Your task to perform on an android device: How much does a 2 bedroom apartment rent for in New York? Image 0: 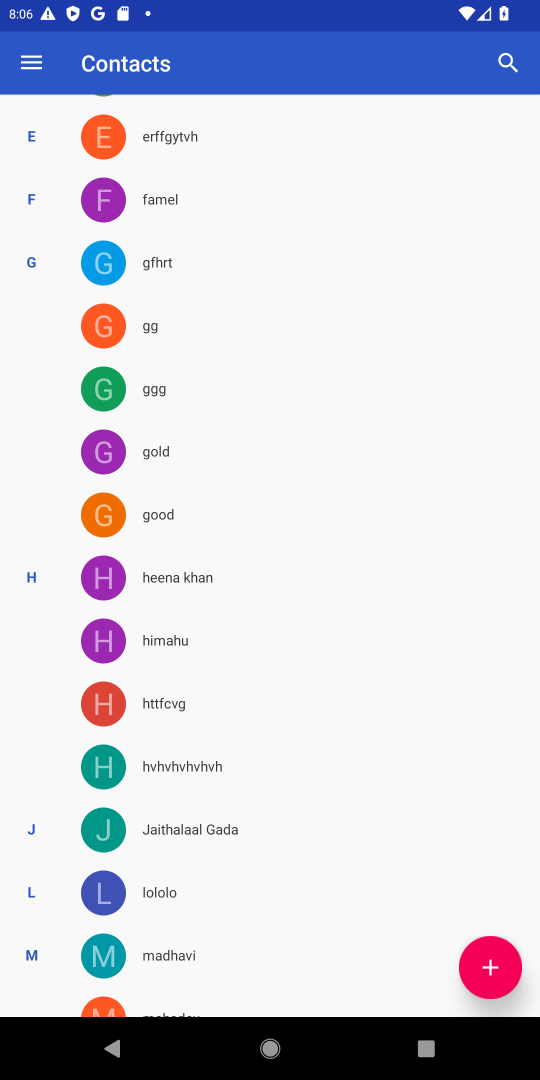
Step 0: press home button
Your task to perform on an android device: How much does a 2 bedroom apartment rent for in New York? Image 1: 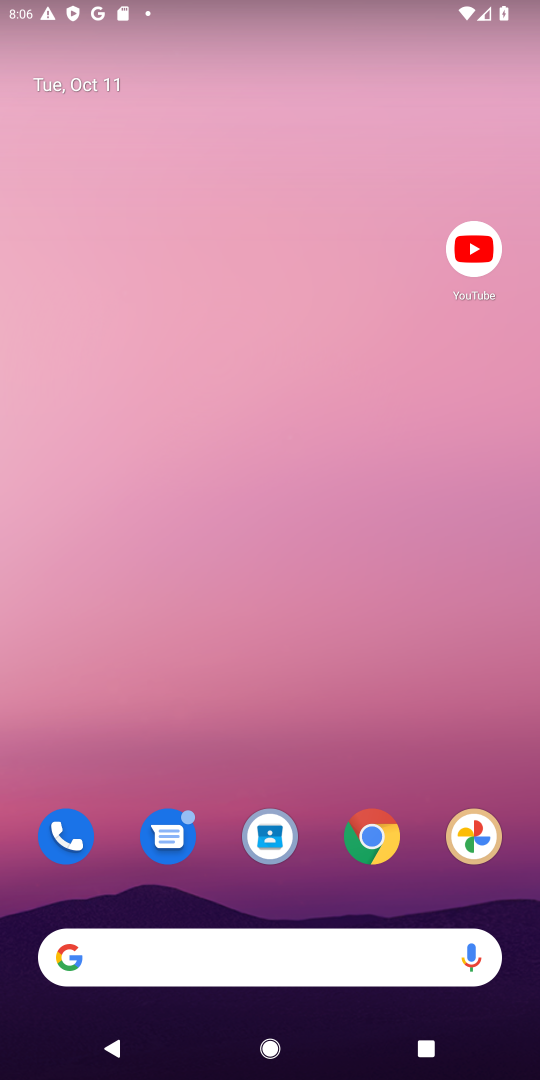
Step 1: click (374, 837)
Your task to perform on an android device: How much does a 2 bedroom apartment rent for in New York? Image 2: 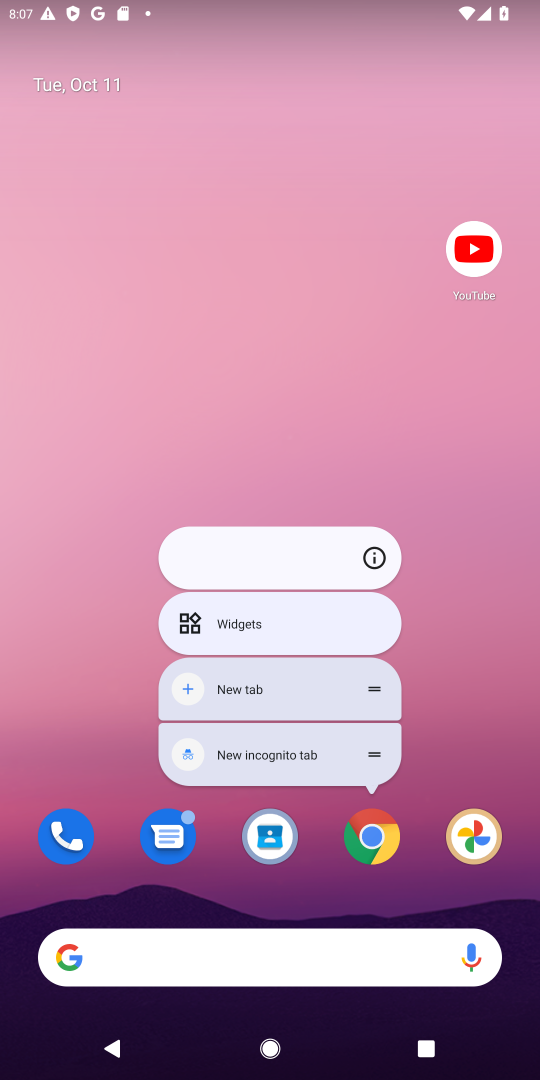
Step 2: click (374, 837)
Your task to perform on an android device: How much does a 2 bedroom apartment rent for in New York? Image 3: 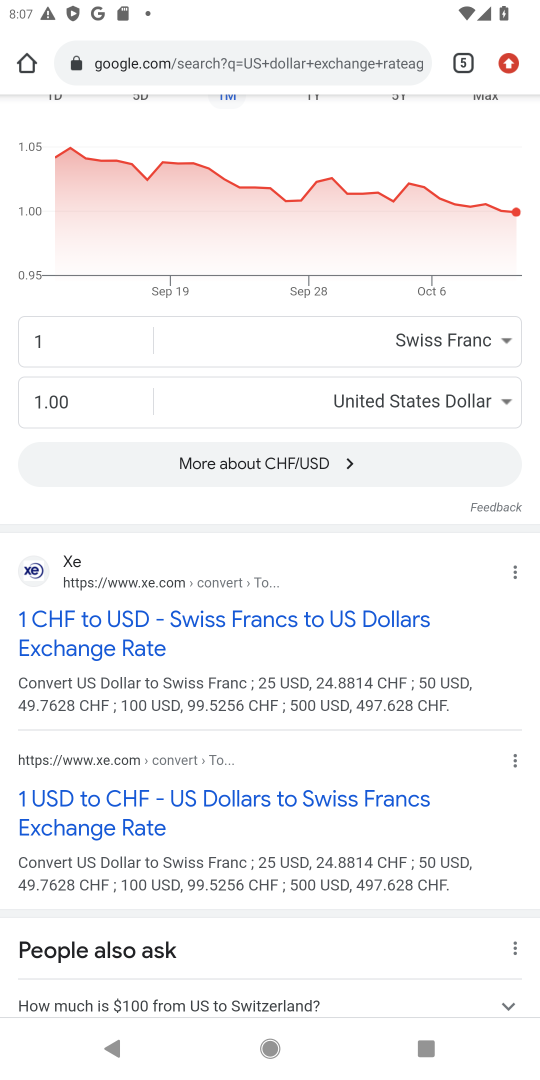
Step 3: click (334, 64)
Your task to perform on an android device: How much does a 2 bedroom apartment rent for in New York? Image 4: 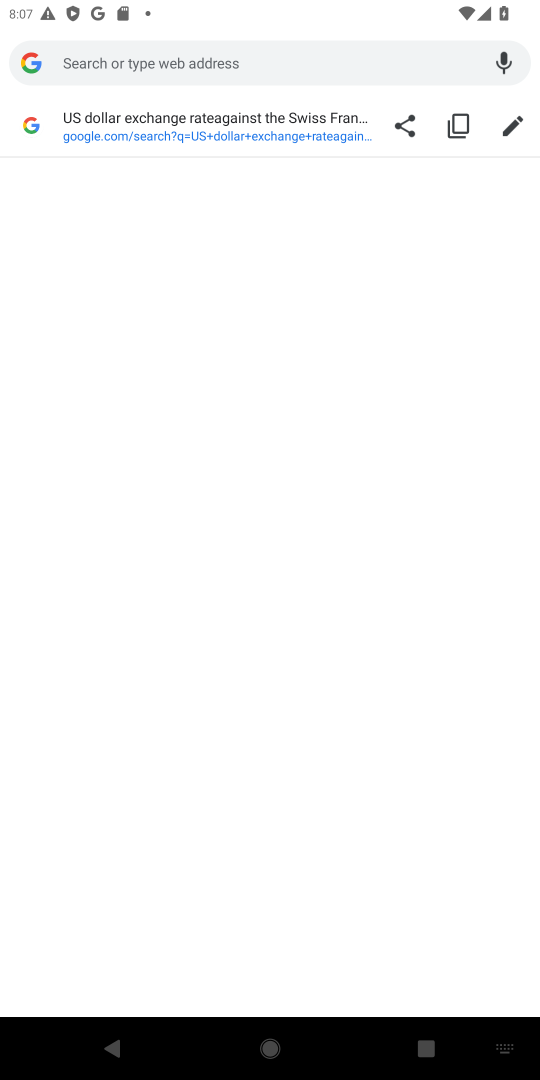
Step 4: type "2 bedroom apartment rent for in New York"
Your task to perform on an android device: How much does a 2 bedroom apartment rent for in New York? Image 5: 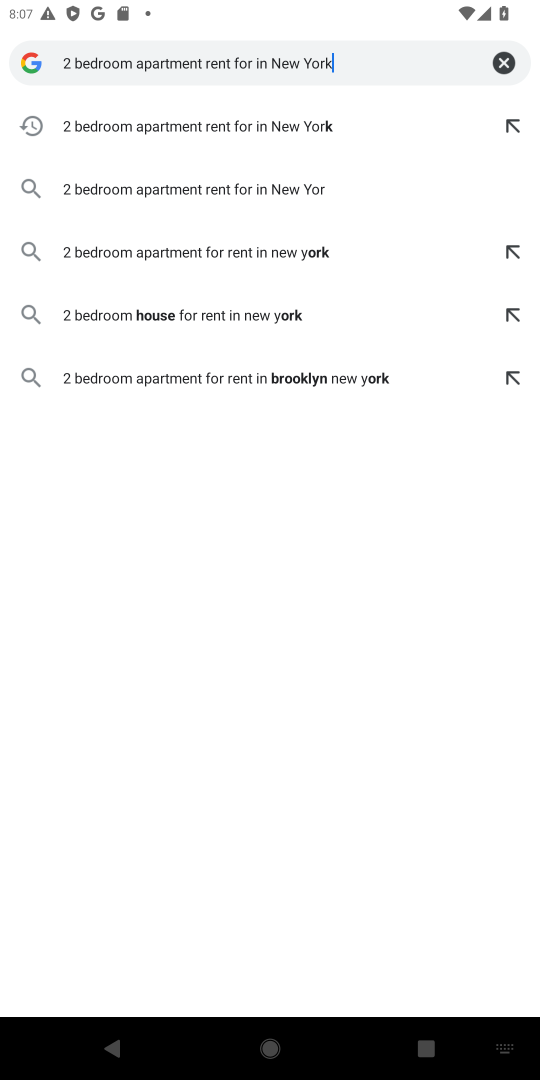
Step 5: press enter
Your task to perform on an android device: How much does a 2 bedroom apartment rent for in New York? Image 6: 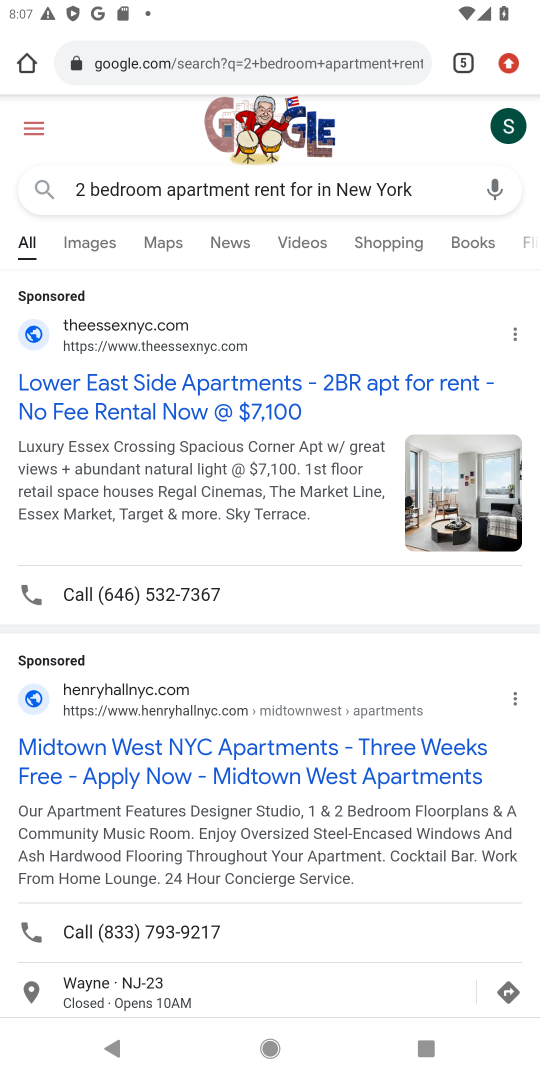
Step 6: drag from (357, 841) to (432, 360)
Your task to perform on an android device: How much does a 2 bedroom apartment rent for in New York? Image 7: 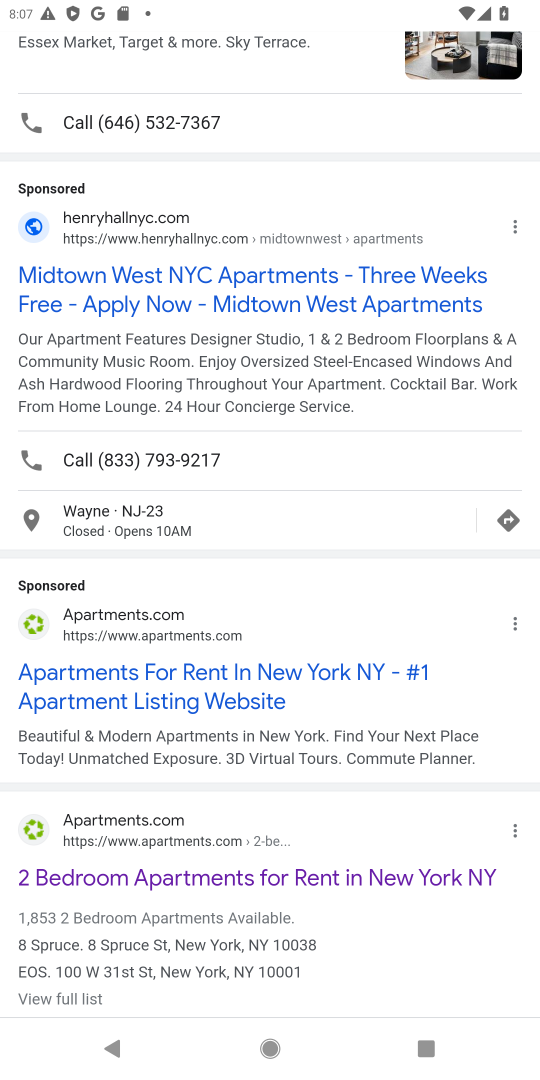
Step 7: drag from (228, 809) to (316, 508)
Your task to perform on an android device: How much does a 2 bedroom apartment rent for in New York? Image 8: 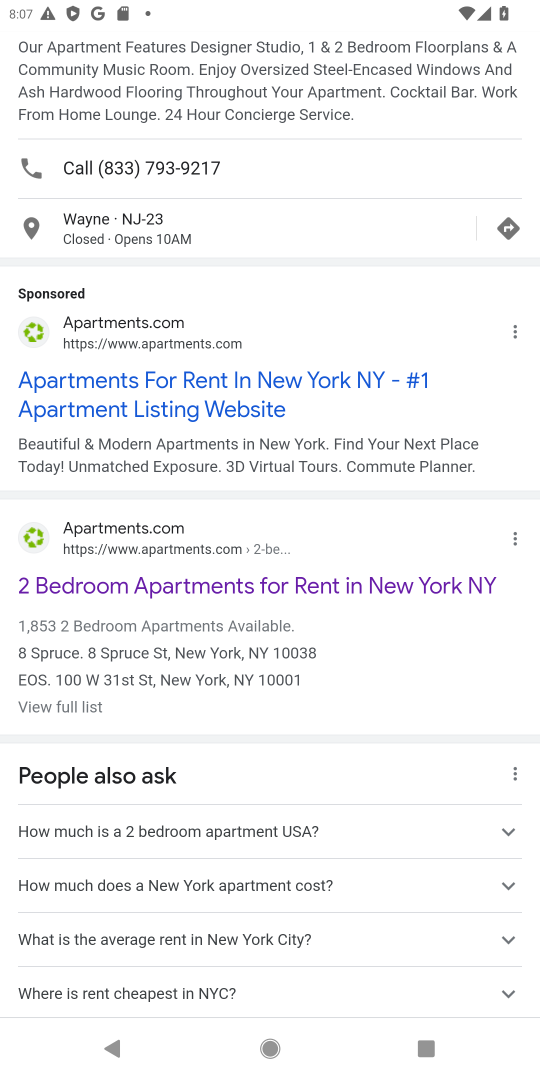
Step 8: click (290, 582)
Your task to perform on an android device: How much does a 2 bedroom apartment rent for in New York? Image 9: 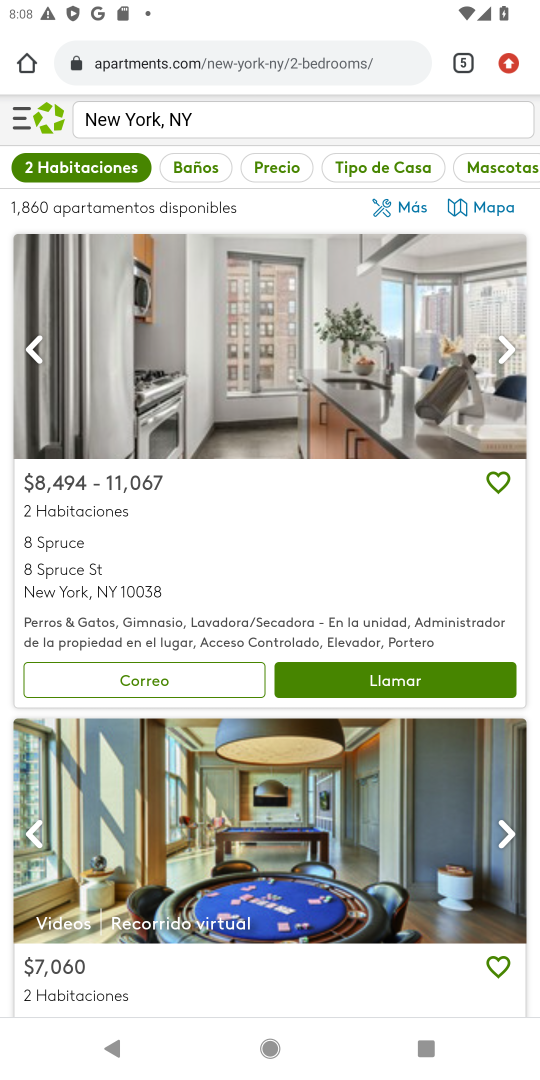
Step 9: task complete